Your task to perform on an android device: change text size in settings app Image 0: 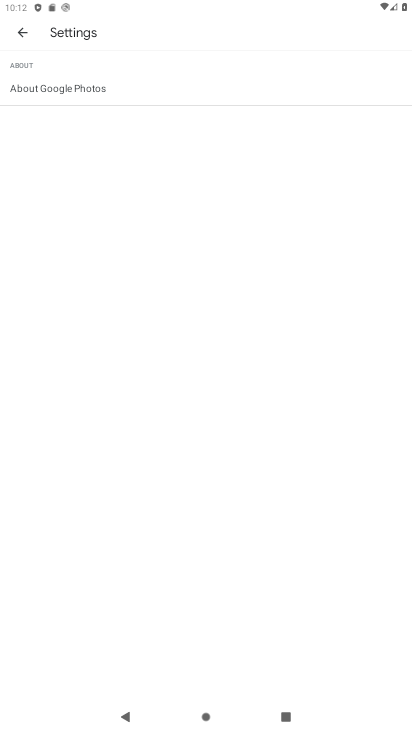
Step 0: press home button
Your task to perform on an android device: change text size in settings app Image 1: 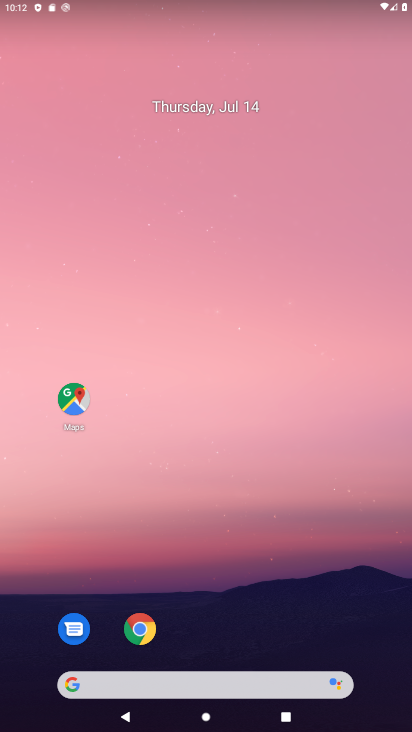
Step 1: drag from (193, 679) to (114, 226)
Your task to perform on an android device: change text size in settings app Image 2: 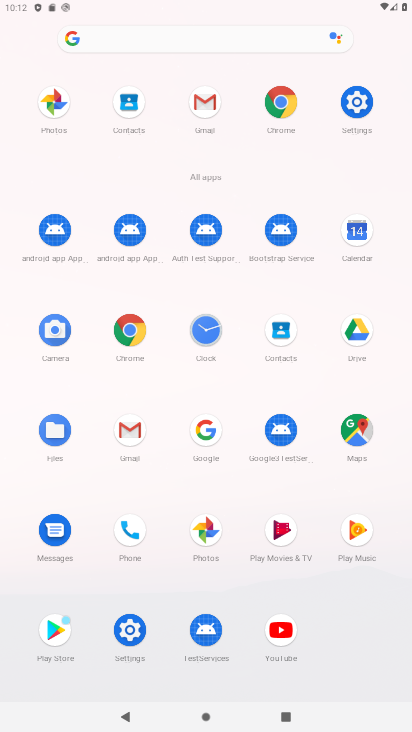
Step 2: click (362, 104)
Your task to perform on an android device: change text size in settings app Image 3: 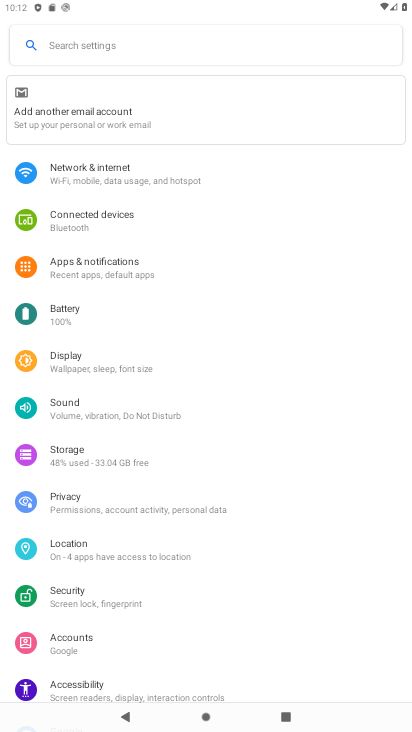
Step 3: drag from (159, 661) to (125, 198)
Your task to perform on an android device: change text size in settings app Image 4: 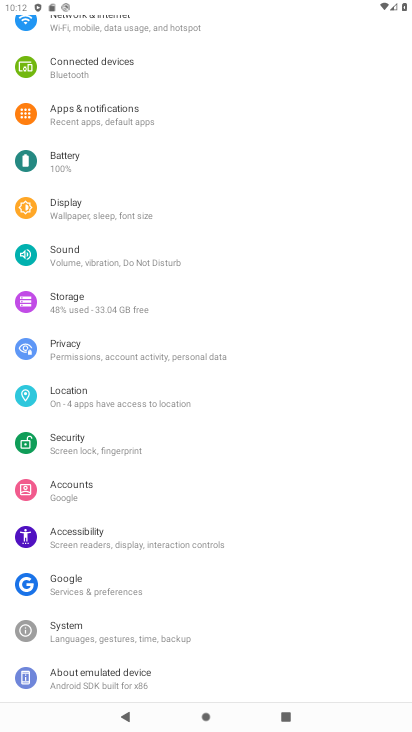
Step 4: click (68, 539)
Your task to perform on an android device: change text size in settings app Image 5: 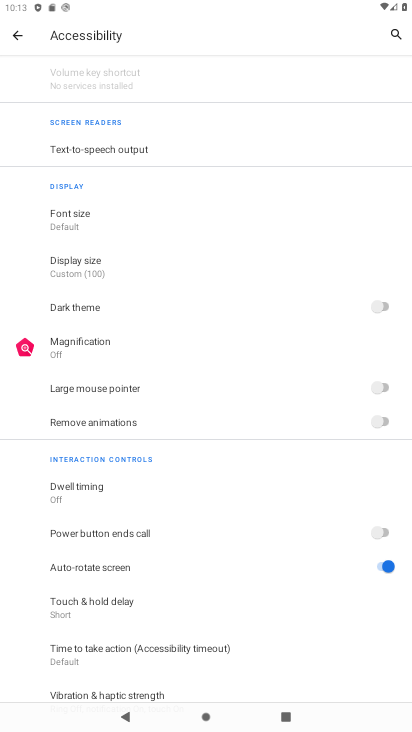
Step 5: drag from (106, 670) to (65, 223)
Your task to perform on an android device: change text size in settings app Image 6: 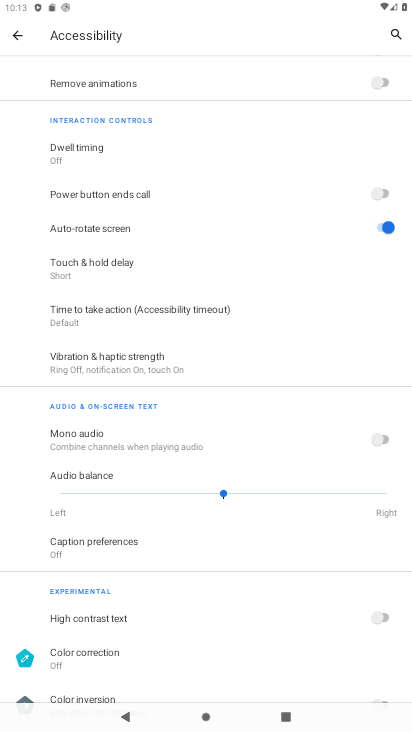
Step 6: drag from (77, 76) to (85, 520)
Your task to perform on an android device: change text size in settings app Image 7: 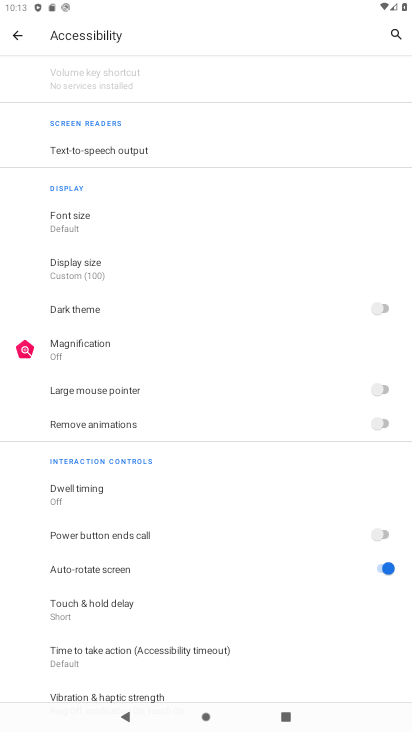
Step 7: click (85, 225)
Your task to perform on an android device: change text size in settings app Image 8: 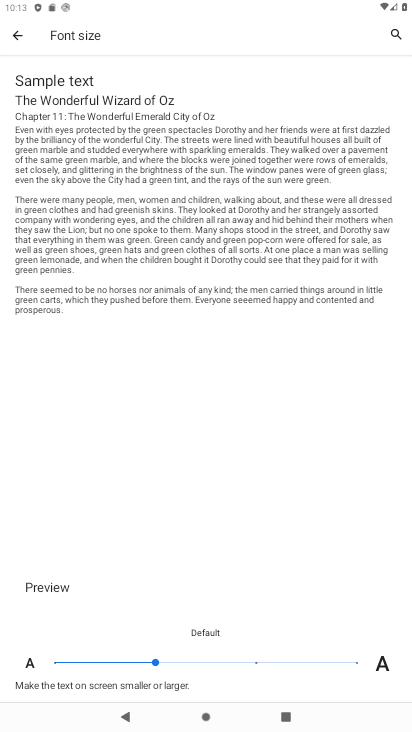
Step 8: click (253, 661)
Your task to perform on an android device: change text size in settings app Image 9: 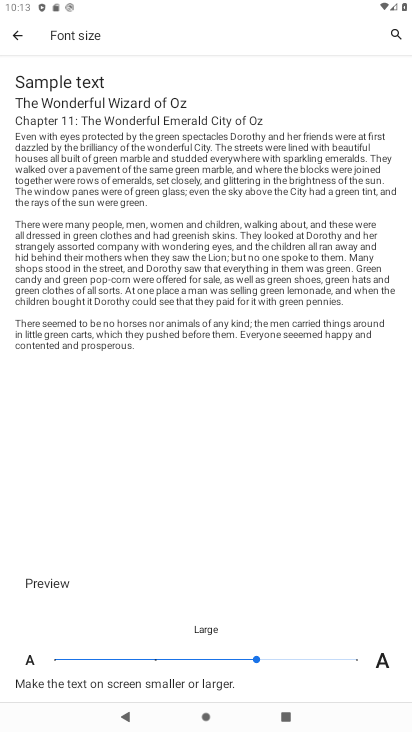
Step 9: task complete